Your task to perform on an android device: set the stopwatch Image 0: 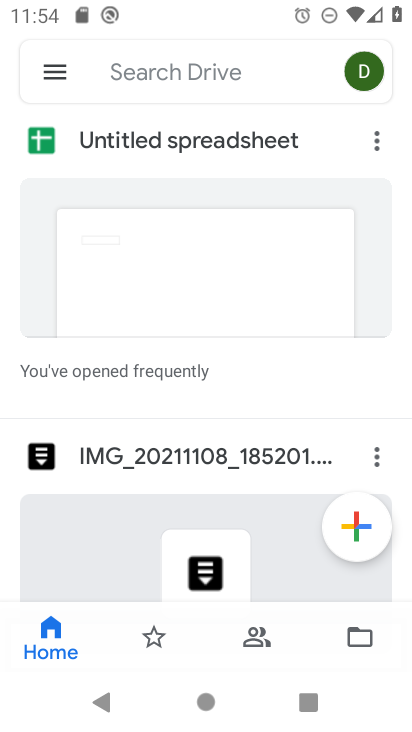
Step 0: press home button
Your task to perform on an android device: set the stopwatch Image 1: 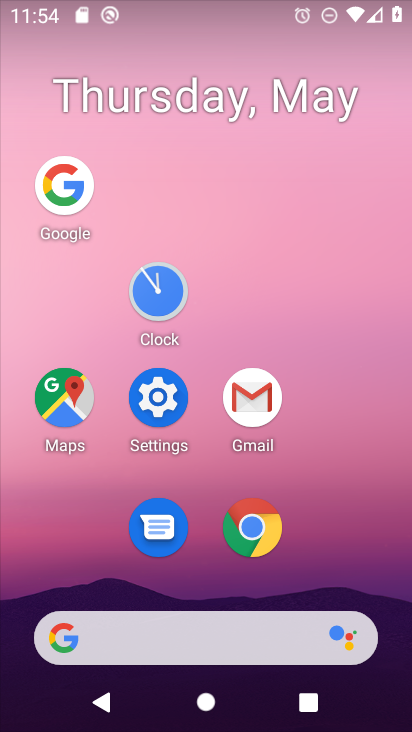
Step 1: click (180, 308)
Your task to perform on an android device: set the stopwatch Image 2: 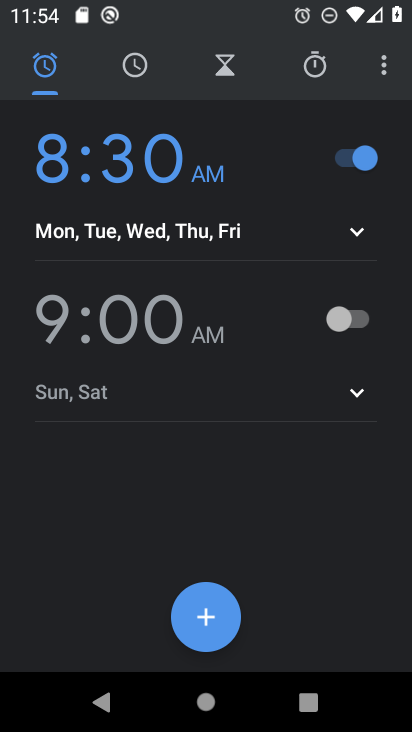
Step 2: click (315, 91)
Your task to perform on an android device: set the stopwatch Image 3: 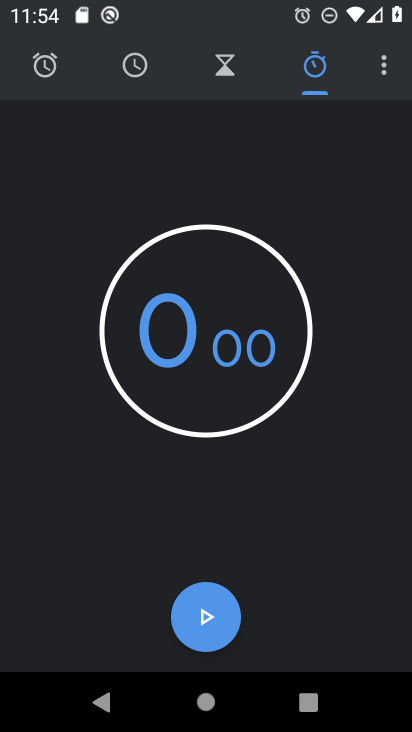
Step 3: task complete